Your task to perform on an android device: Go to ESPN.com Image 0: 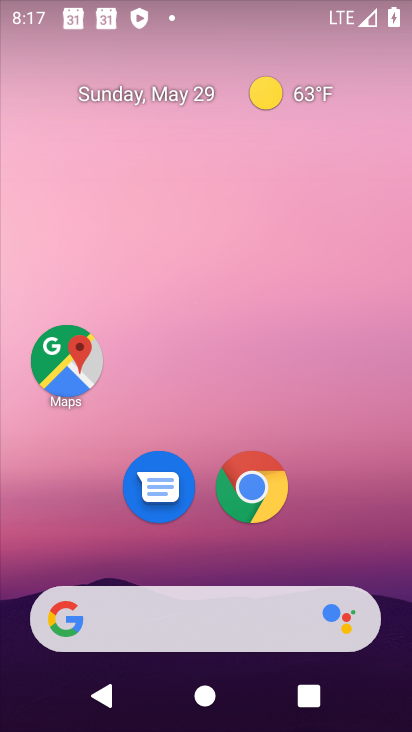
Step 0: click (266, 487)
Your task to perform on an android device: Go to ESPN.com Image 1: 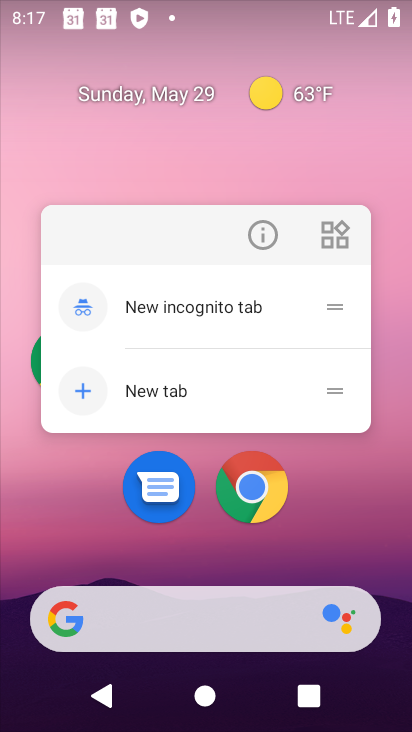
Step 1: click (250, 501)
Your task to perform on an android device: Go to ESPN.com Image 2: 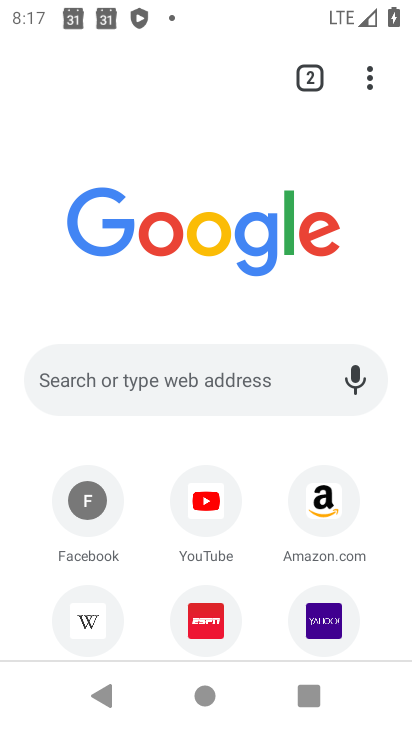
Step 2: drag from (211, 518) to (231, 232)
Your task to perform on an android device: Go to ESPN.com Image 3: 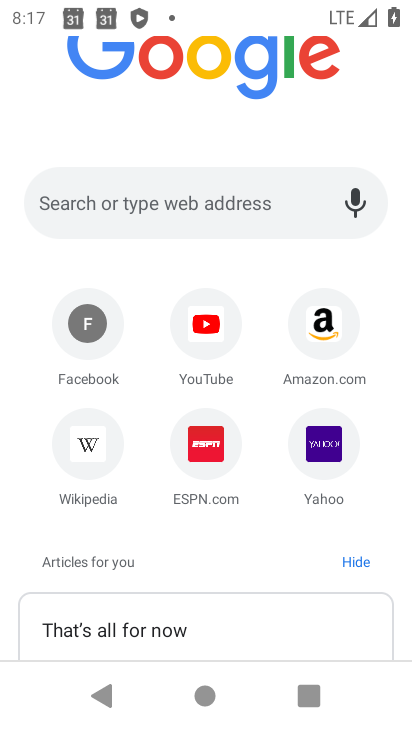
Step 3: click (203, 468)
Your task to perform on an android device: Go to ESPN.com Image 4: 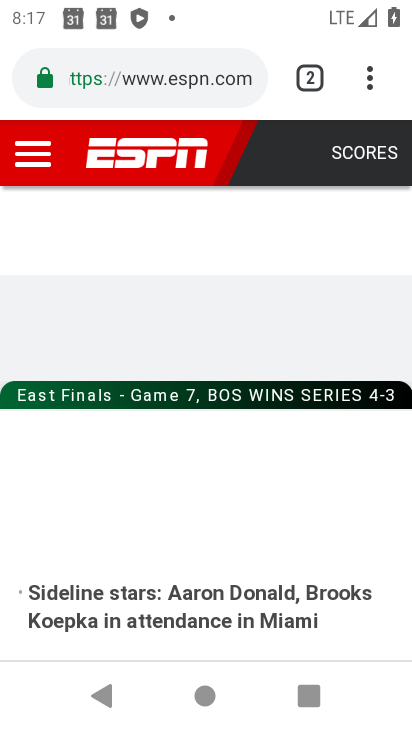
Step 4: task complete